Your task to perform on an android device: turn off sleep mode Image 0: 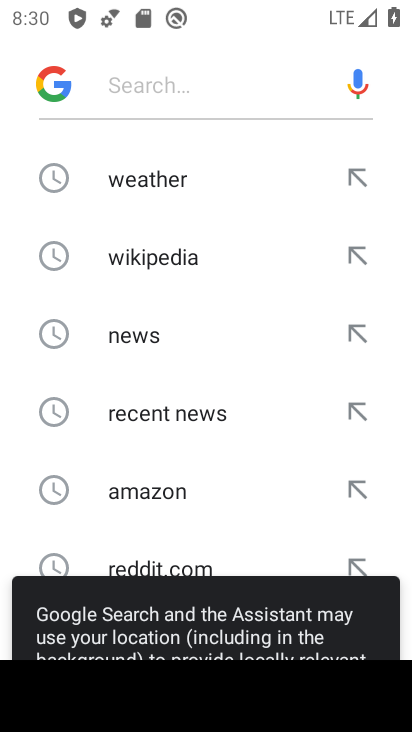
Step 0: press home button
Your task to perform on an android device: turn off sleep mode Image 1: 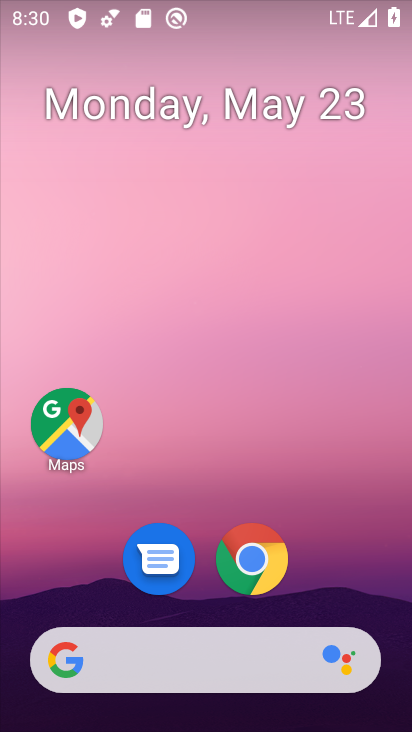
Step 1: drag from (309, 600) to (329, 74)
Your task to perform on an android device: turn off sleep mode Image 2: 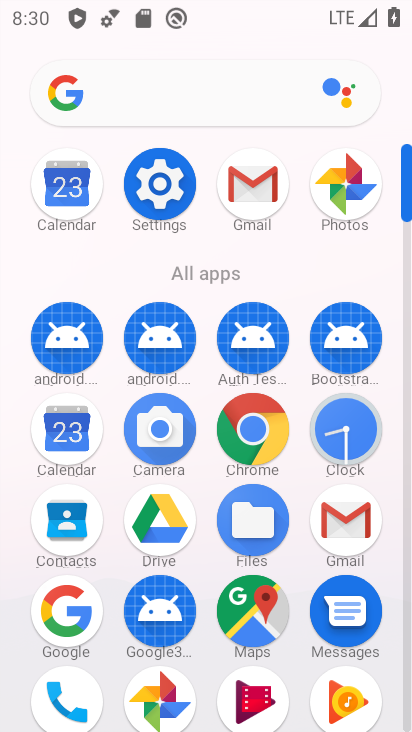
Step 2: click (159, 172)
Your task to perform on an android device: turn off sleep mode Image 3: 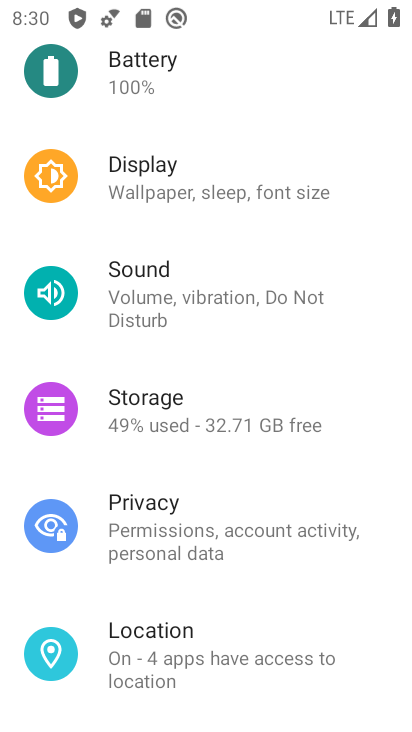
Step 3: drag from (123, 274) to (127, 445)
Your task to perform on an android device: turn off sleep mode Image 4: 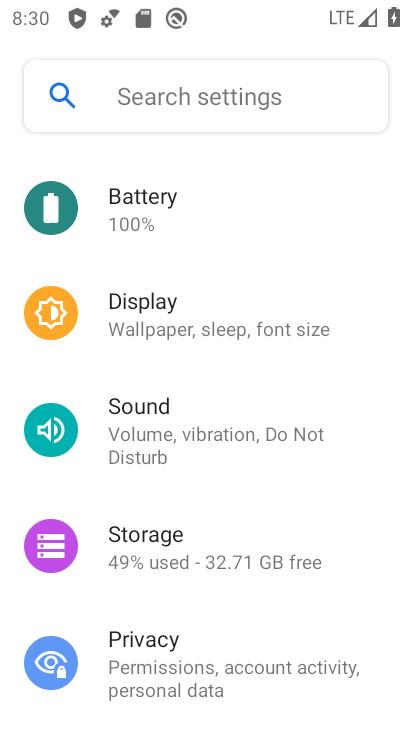
Step 4: click (135, 329)
Your task to perform on an android device: turn off sleep mode Image 5: 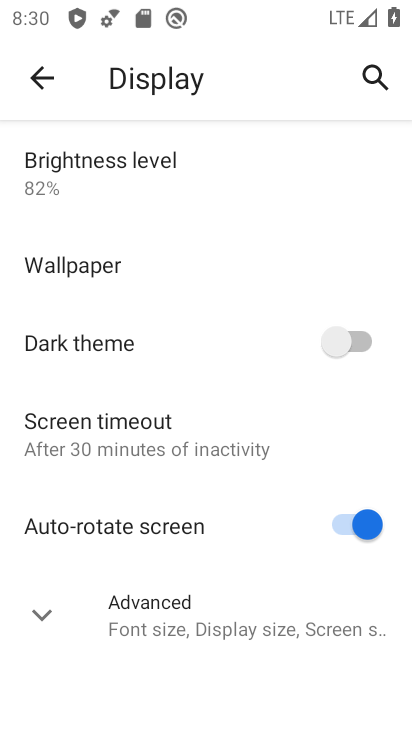
Step 5: click (121, 612)
Your task to perform on an android device: turn off sleep mode Image 6: 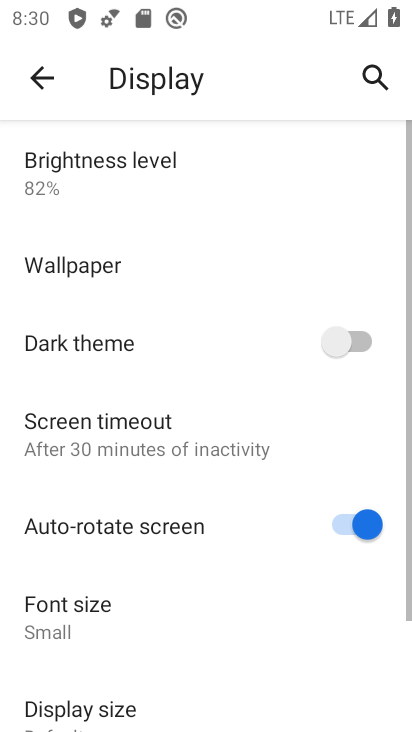
Step 6: drag from (110, 578) to (117, 266)
Your task to perform on an android device: turn off sleep mode Image 7: 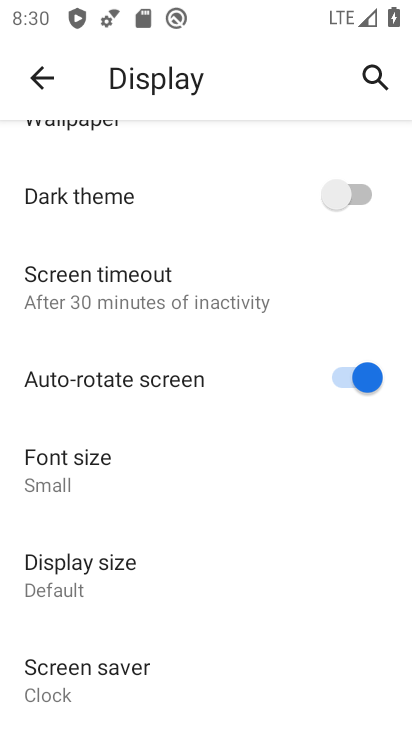
Step 7: click (44, 84)
Your task to perform on an android device: turn off sleep mode Image 8: 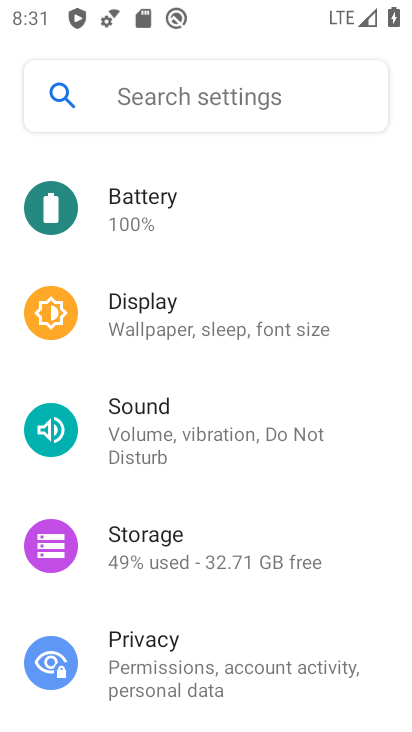
Step 8: task complete